Your task to perform on an android device: Go to network settings Image 0: 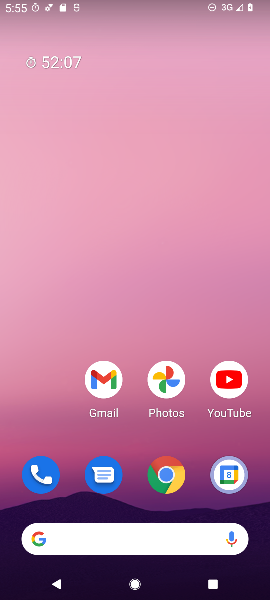
Step 0: press home button
Your task to perform on an android device: Go to network settings Image 1: 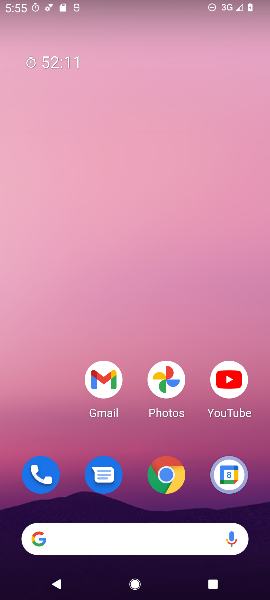
Step 1: drag from (60, 412) to (74, 219)
Your task to perform on an android device: Go to network settings Image 2: 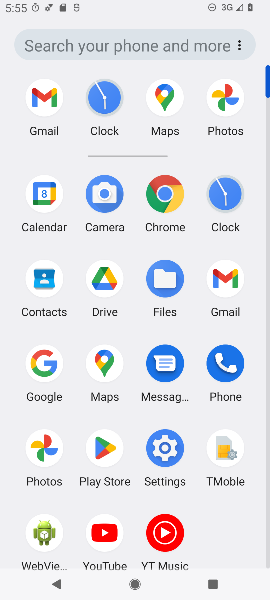
Step 2: click (161, 451)
Your task to perform on an android device: Go to network settings Image 3: 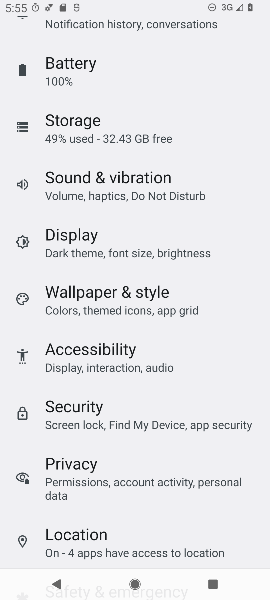
Step 3: drag from (231, 217) to (229, 279)
Your task to perform on an android device: Go to network settings Image 4: 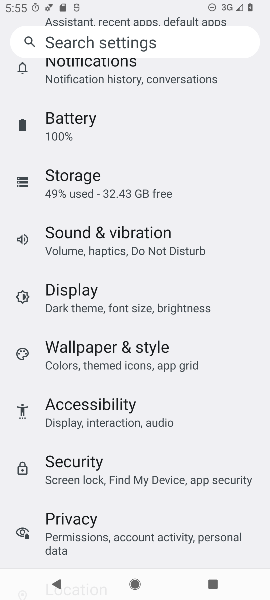
Step 4: drag from (236, 224) to (233, 297)
Your task to perform on an android device: Go to network settings Image 5: 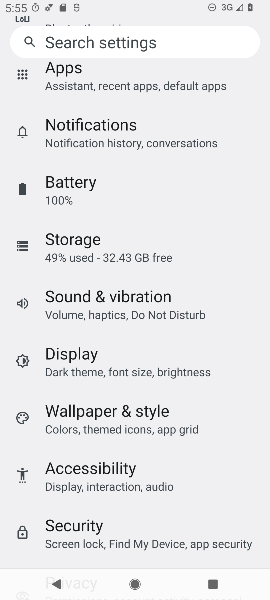
Step 5: drag from (235, 180) to (233, 257)
Your task to perform on an android device: Go to network settings Image 6: 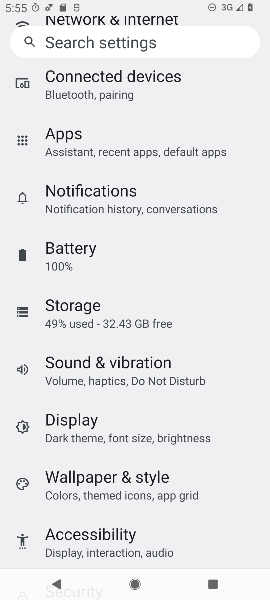
Step 6: drag from (243, 181) to (237, 252)
Your task to perform on an android device: Go to network settings Image 7: 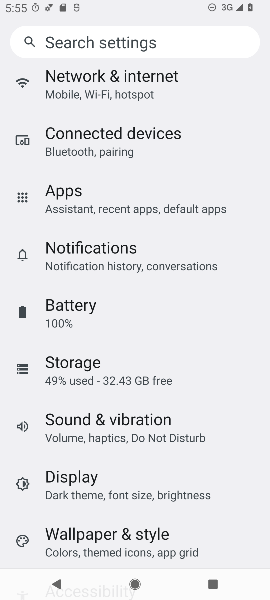
Step 7: drag from (245, 156) to (245, 242)
Your task to perform on an android device: Go to network settings Image 8: 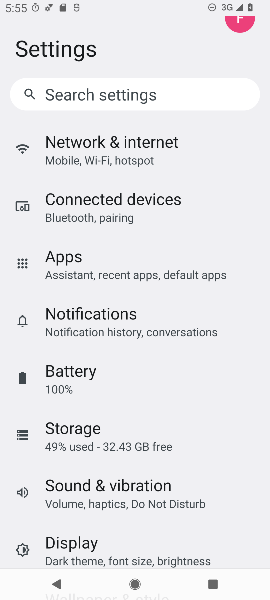
Step 8: drag from (244, 161) to (243, 255)
Your task to perform on an android device: Go to network settings Image 9: 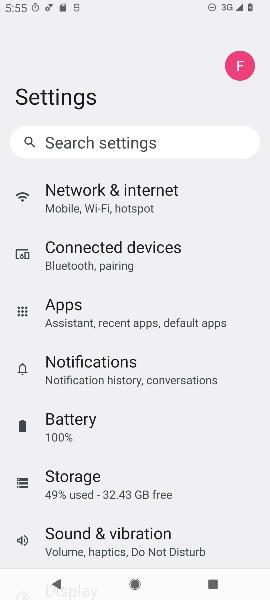
Step 9: click (191, 181)
Your task to perform on an android device: Go to network settings Image 10: 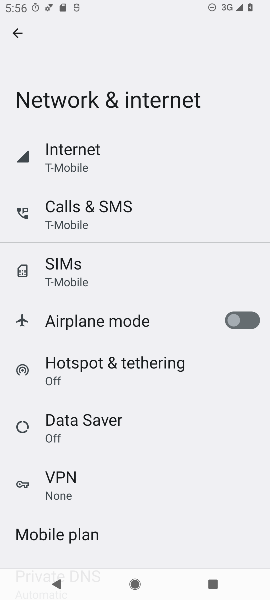
Step 10: task complete